Your task to perform on an android device: Is it going to rain today? Image 0: 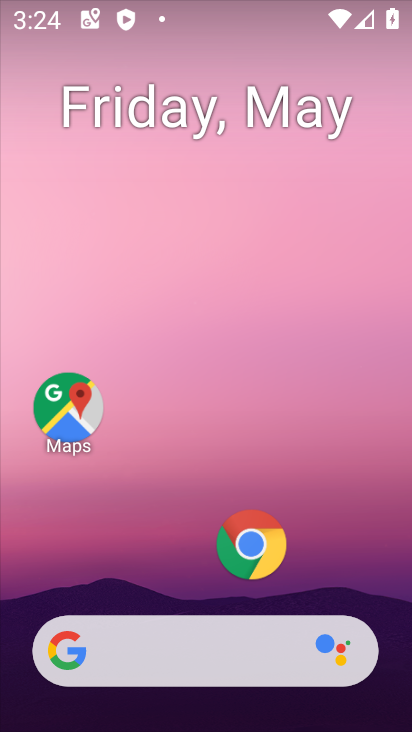
Step 0: drag from (206, 593) to (232, 247)
Your task to perform on an android device: Is it going to rain today? Image 1: 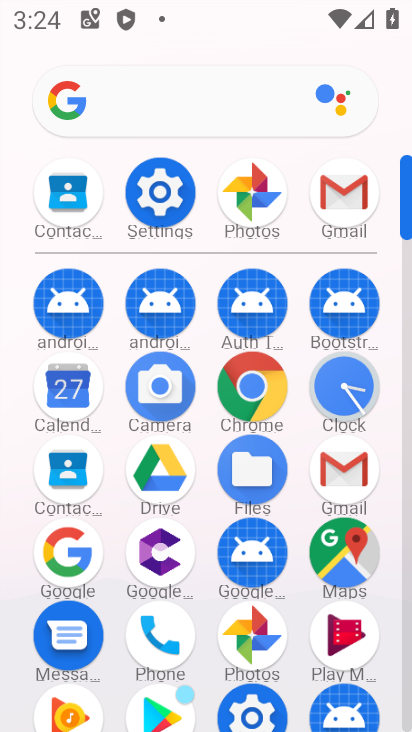
Step 1: click (89, 541)
Your task to perform on an android device: Is it going to rain today? Image 2: 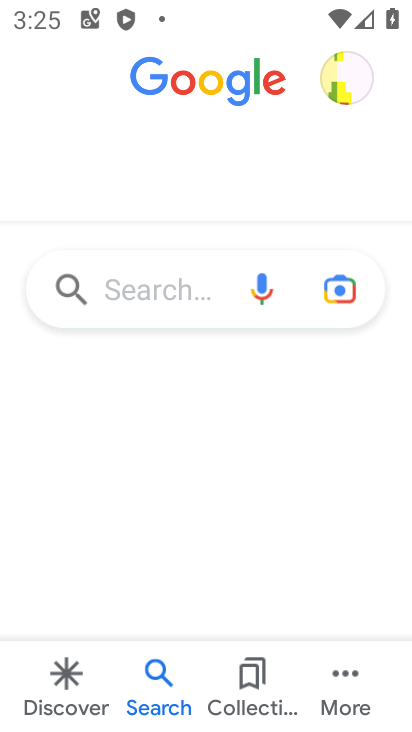
Step 2: click (128, 299)
Your task to perform on an android device: Is it going to rain today? Image 3: 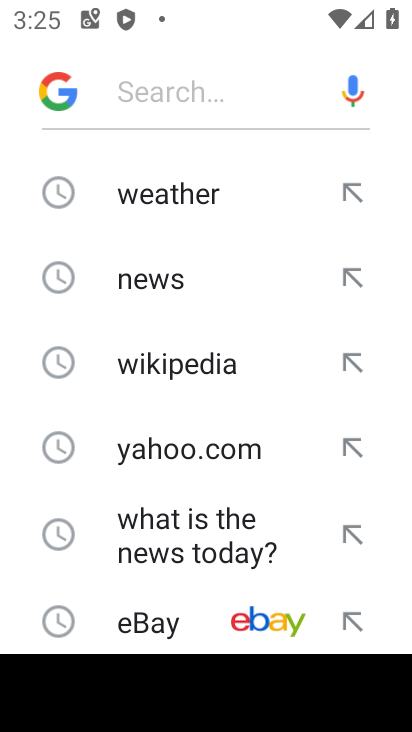
Step 3: click (232, 208)
Your task to perform on an android device: Is it going to rain today? Image 4: 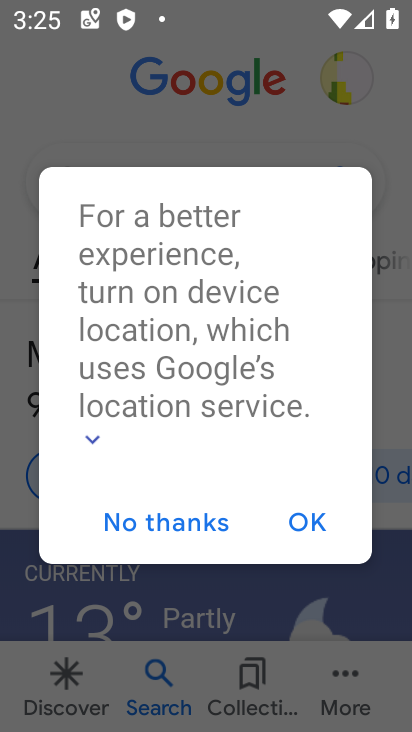
Step 4: click (290, 528)
Your task to perform on an android device: Is it going to rain today? Image 5: 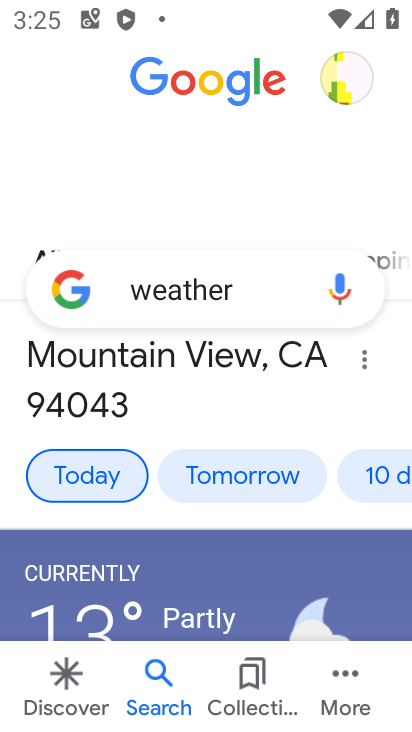
Step 5: task complete